Your task to perform on an android device: allow notifications from all sites in the chrome app Image 0: 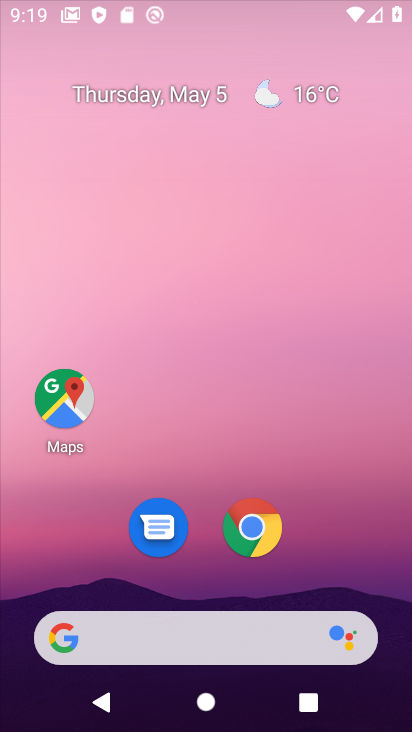
Step 0: press home button
Your task to perform on an android device: allow notifications from all sites in the chrome app Image 1: 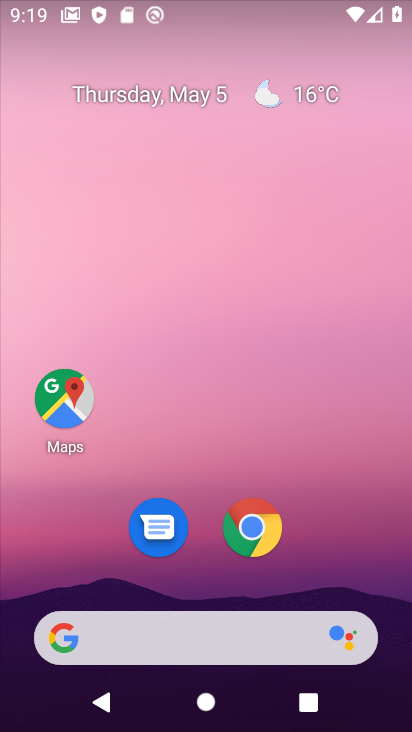
Step 1: click (247, 525)
Your task to perform on an android device: allow notifications from all sites in the chrome app Image 2: 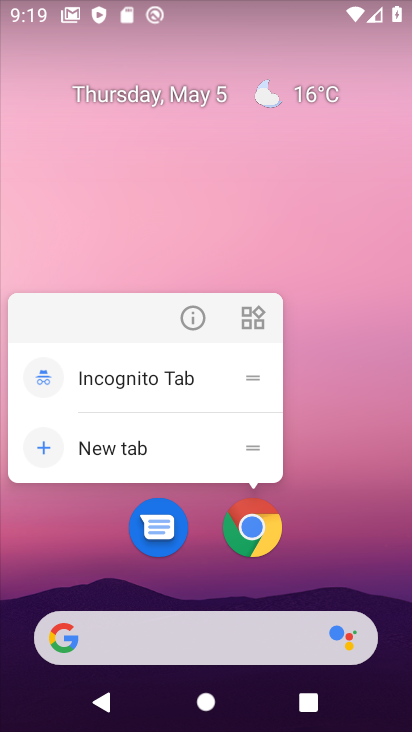
Step 2: click (249, 517)
Your task to perform on an android device: allow notifications from all sites in the chrome app Image 3: 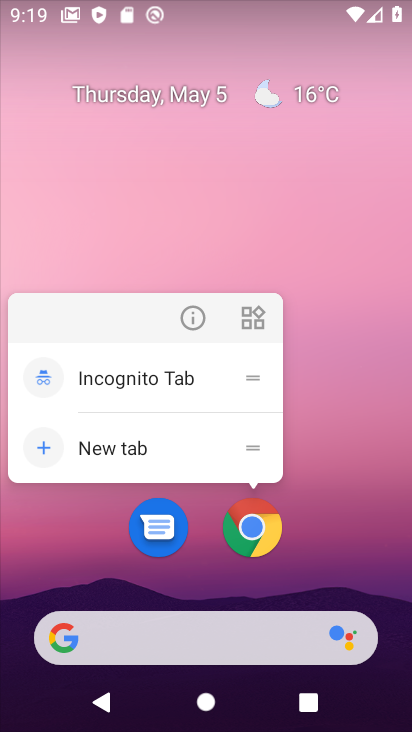
Step 3: click (308, 556)
Your task to perform on an android device: allow notifications from all sites in the chrome app Image 4: 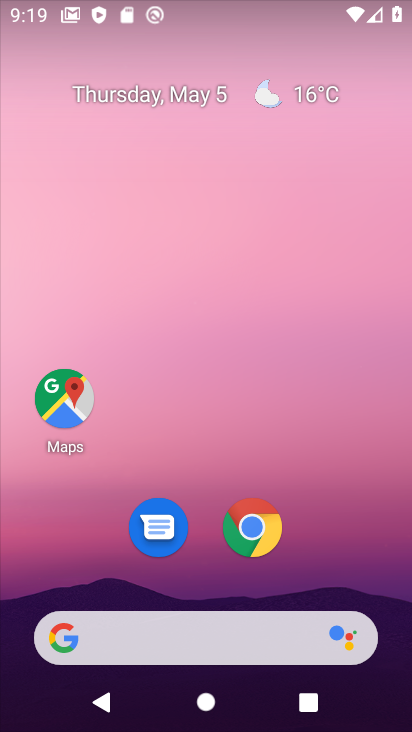
Step 4: drag from (312, 591) to (302, 3)
Your task to perform on an android device: allow notifications from all sites in the chrome app Image 5: 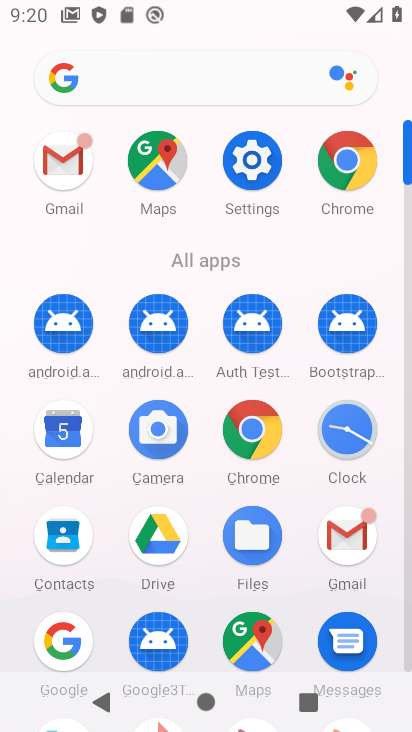
Step 5: click (346, 154)
Your task to perform on an android device: allow notifications from all sites in the chrome app Image 6: 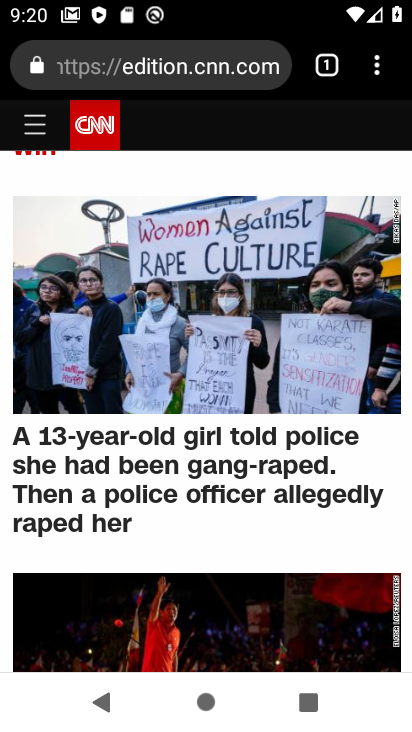
Step 6: click (377, 64)
Your task to perform on an android device: allow notifications from all sites in the chrome app Image 7: 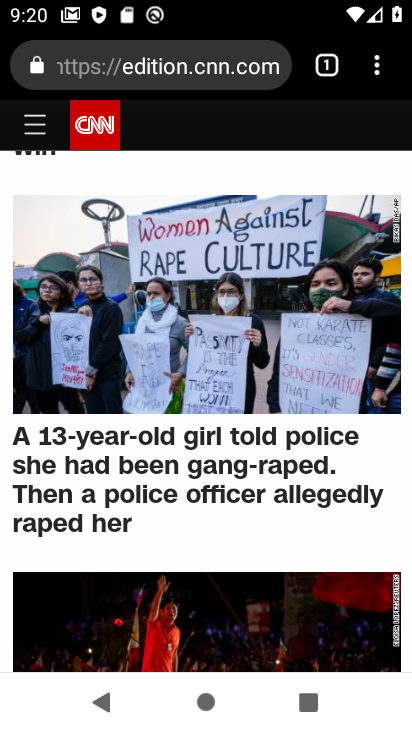
Step 7: click (377, 64)
Your task to perform on an android device: allow notifications from all sites in the chrome app Image 8: 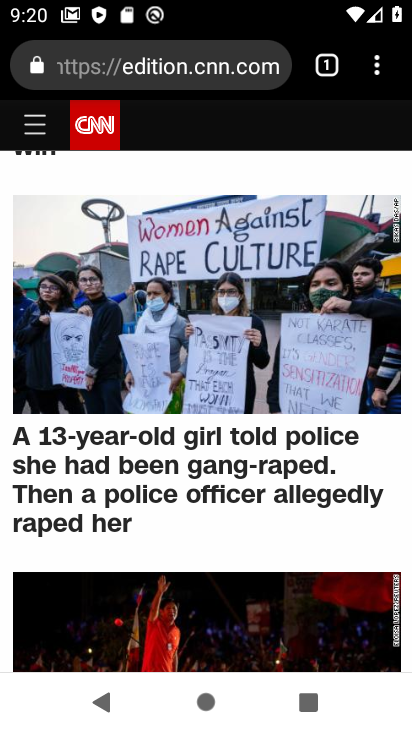
Step 8: click (377, 64)
Your task to perform on an android device: allow notifications from all sites in the chrome app Image 9: 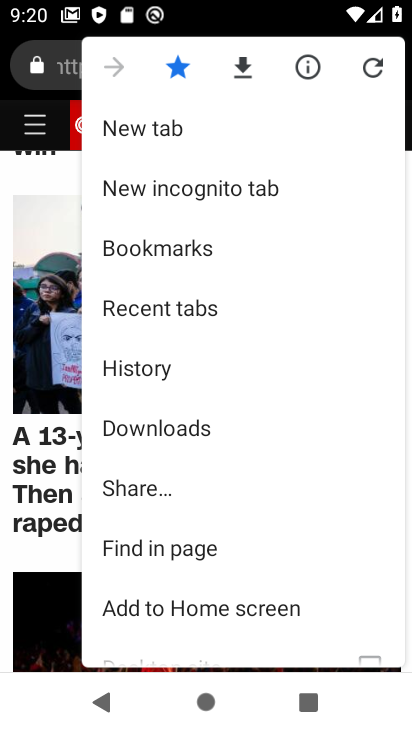
Step 9: drag from (242, 627) to (243, 154)
Your task to perform on an android device: allow notifications from all sites in the chrome app Image 10: 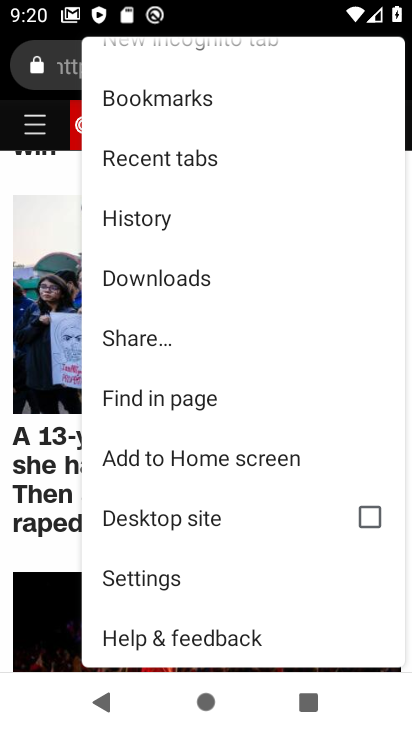
Step 10: click (188, 573)
Your task to perform on an android device: allow notifications from all sites in the chrome app Image 11: 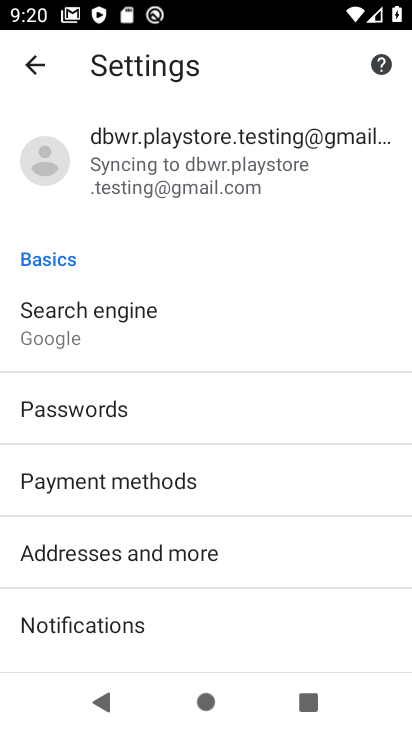
Step 11: drag from (186, 610) to (198, 145)
Your task to perform on an android device: allow notifications from all sites in the chrome app Image 12: 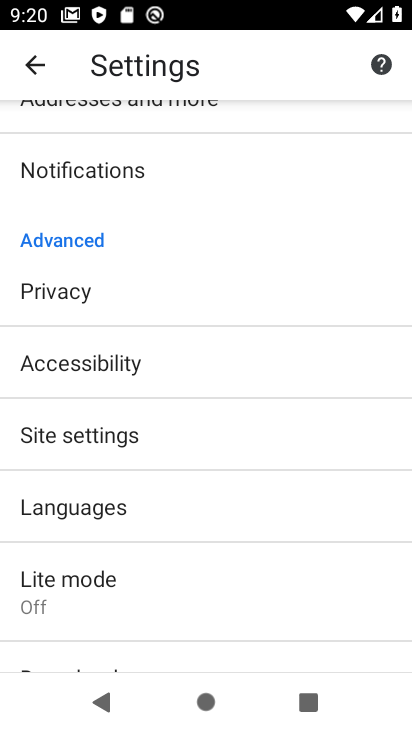
Step 12: click (166, 428)
Your task to perform on an android device: allow notifications from all sites in the chrome app Image 13: 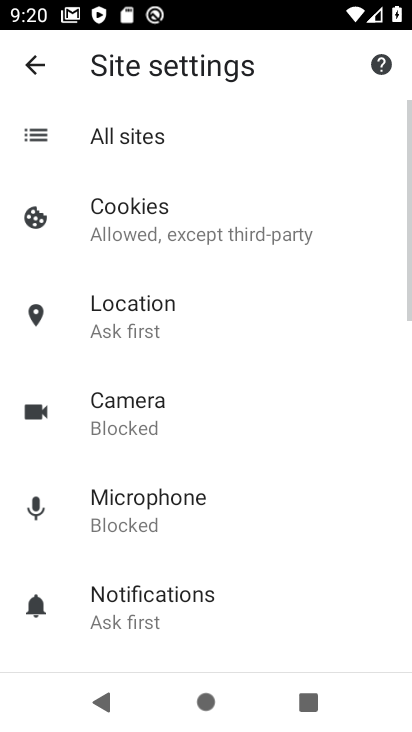
Step 13: click (181, 130)
Your task to perform on an android device: allow notifications from all sites in the chrome app Image 14: 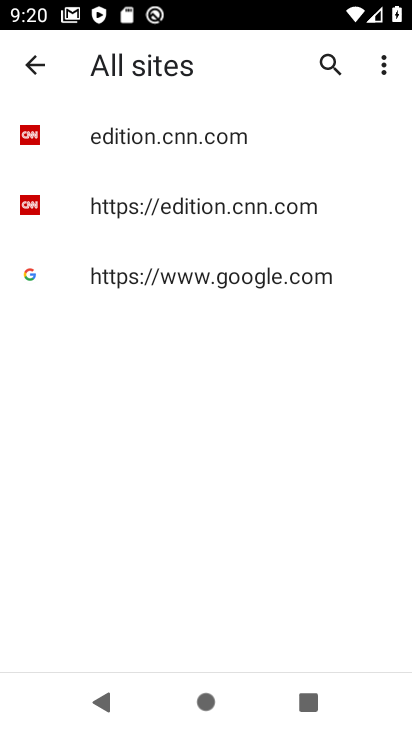
Step 14: click (95, 147)
Your task to perform on an android device: allow notifications from all sites in the chrome app Image 15: 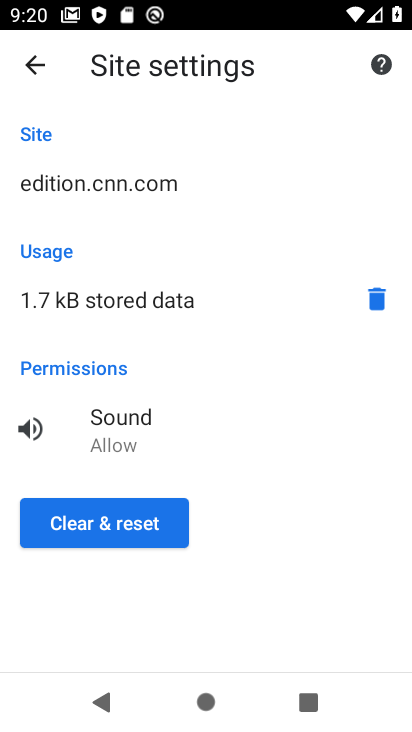
Step 15: click (33, 60)
Your task to perform on an android device: allow notifications from all sites in the chrome app Image 16: 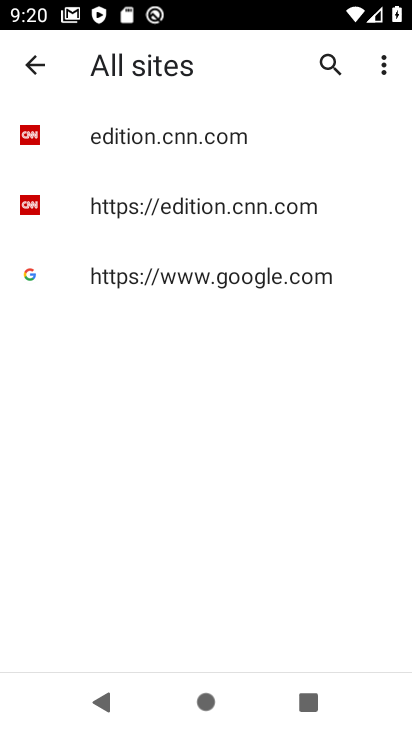
Step 16: click (83, 203)
Your task to perform on an android device: allow notifications from all sites in the chrome app Image 17: 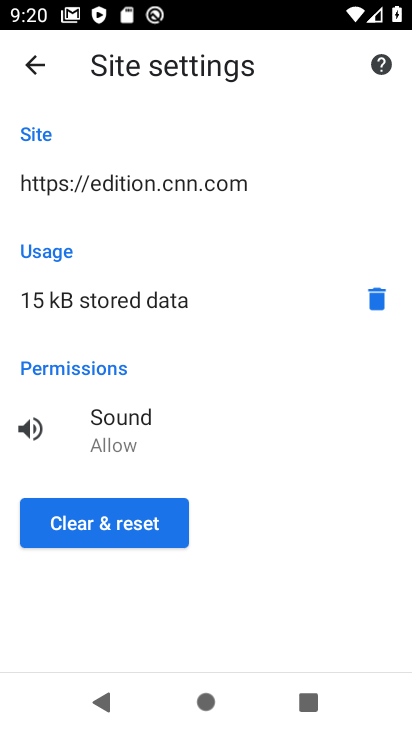
Step 17: click (32, 71)
Your task to perform on an android device: allow notifications from all sites in the chrome app Image 18: 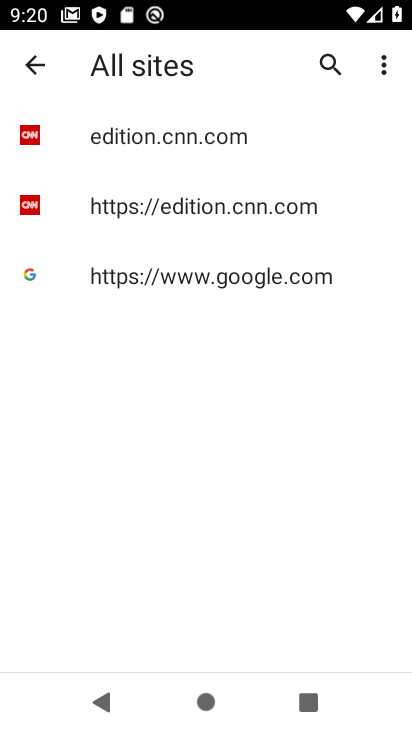
Step 18: click (65, 268)
Your task to perform on an android device: allow notifications from all sites in the chrome app Image 19: 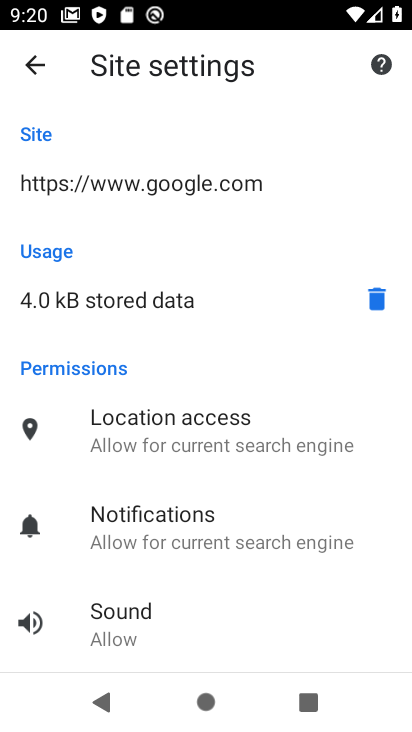
Step 19: task complete